Your task to perform on an android device: Go to network settings Image 0: 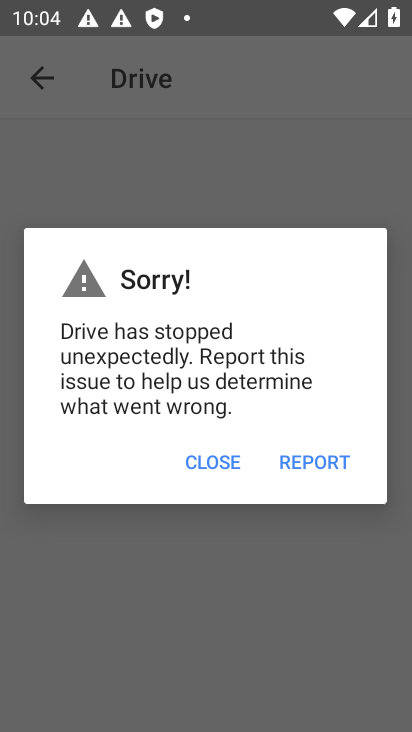
Step 0: press home button
Your task to perform on an android device: Go to network settings Image 1: 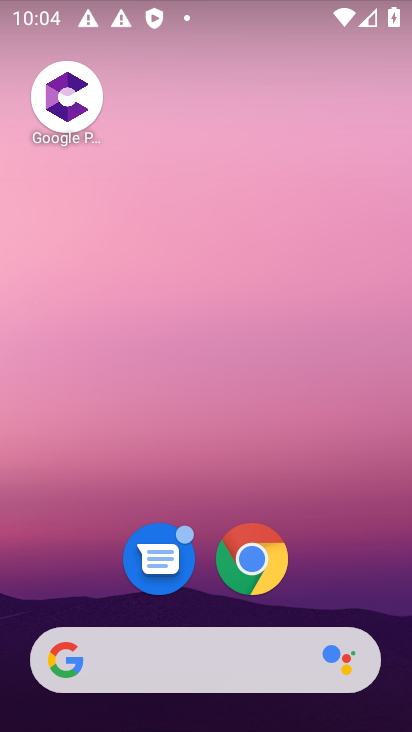
Step 1: drag from (200, 168) to (239, 0)
Your task to perform on an android device: Go to network settings Image 2: 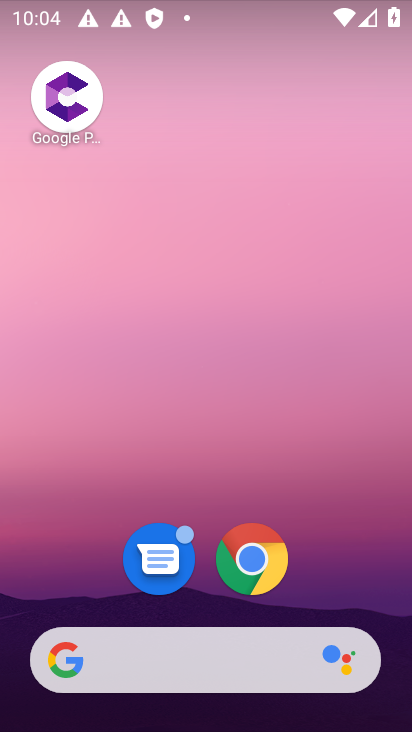
Step 2: drag from (204, 597) to (218, 93)
Your task to perform on an android device: Go to network settings Image 3: 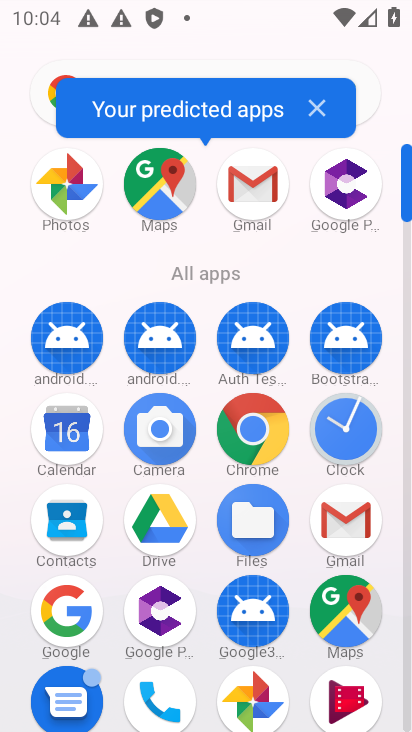
Step 3: drag from (197, 555) to (203, 382)
Your task to perform on an android device: Go to network settings Image 4: 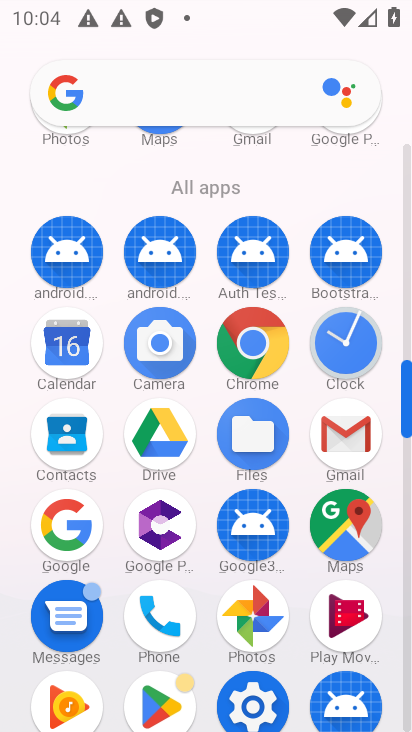
Step 4: click (263, 712)
Your task to perform on an android device: Go to network settings Image 5: 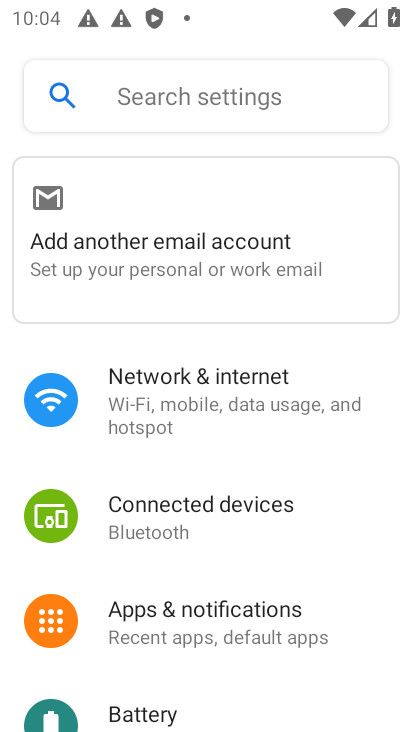
Step 5: task complete